Your task to perform on an android device: Open calendar and show me the fourth week of next month Image 0: 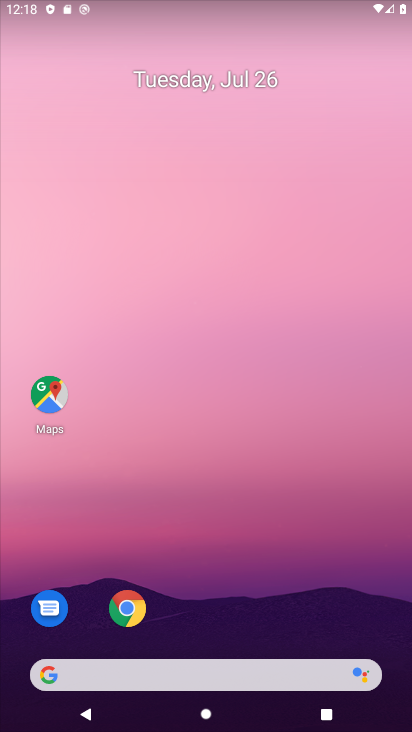
Step 0: drag from (276, 609) to (300, 64)
Your task to perform on an android device: Open calendar and show me the fourth week of next month Image 1: 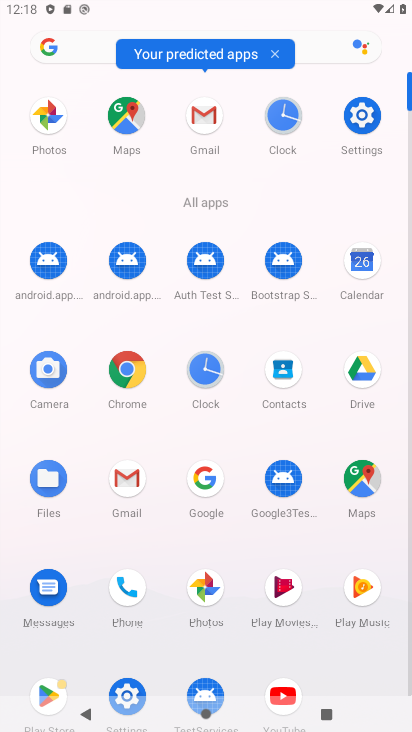
Step 1: click (363, 263)
Your task to perform on an android device: Open calendar and show me the fourth week of next month Image 2: 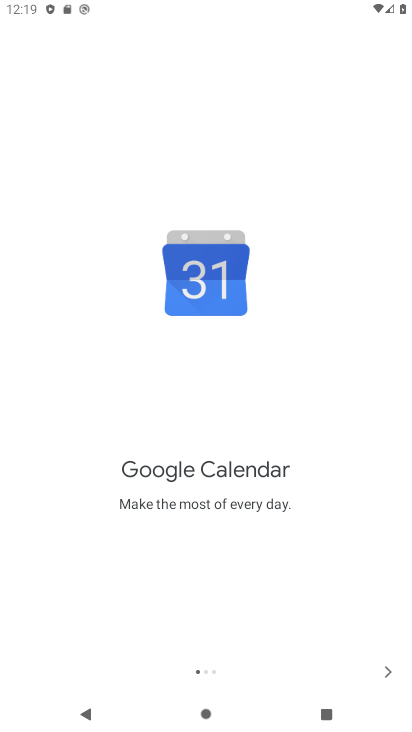
Step 2: click (389, 673)
Your task to perform on an android device: Open calendar and show me the fourth week of next month Image 3: 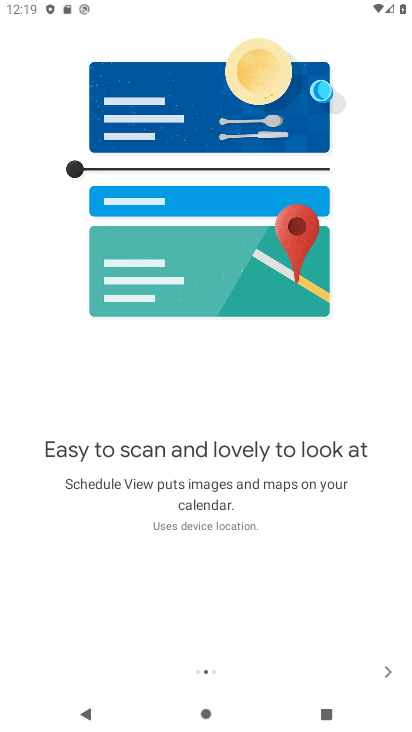
Step 3: click (389, 673)
Your task to perform on an android device: Open calendar and show me the fourth week of next month Image 4: 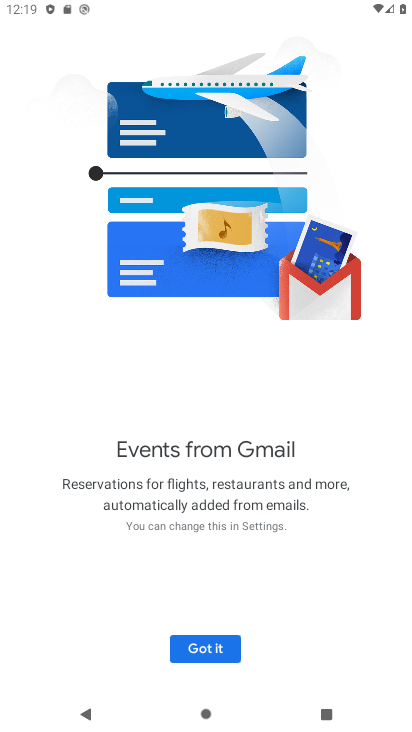
Step 4: click (195, 657)
Your task to perform on an android device: Open calendar and show me the fourth week of next month Image 5: 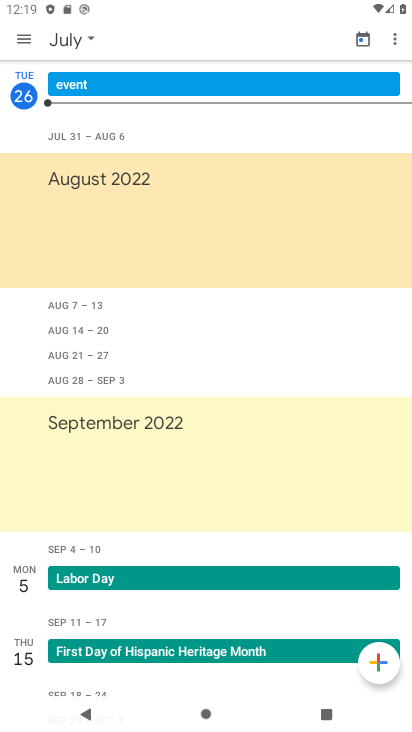
Step 5: click (93, 43)
Your task to perform on an android device: Open calendar and show me the fourth week of next month Image 6: 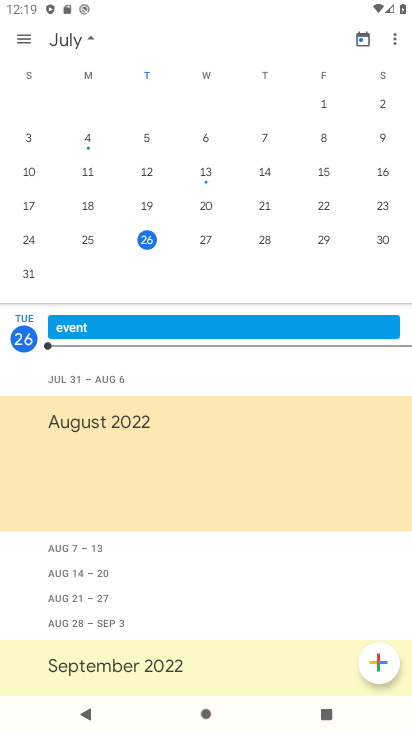
Step 6: drag from (362, 120) to (23, 110)
Your task to perform on an android device: Open calendar and show me the fourth week of next month Image 7: 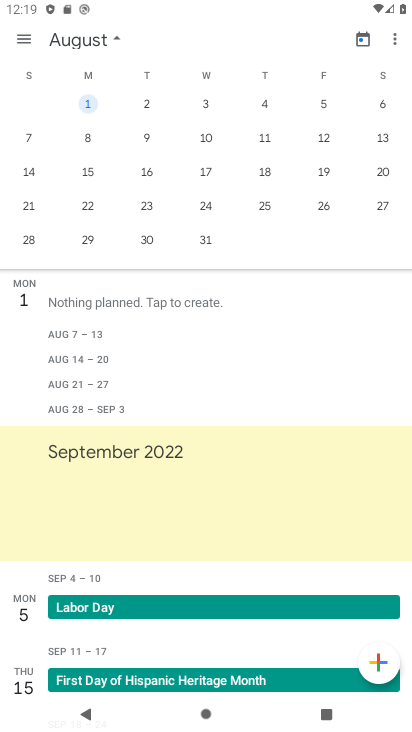
Step 7: click (88, 206)
Your task to perform on an android device: Open calendar and show me the fourth week of next month Image 8: 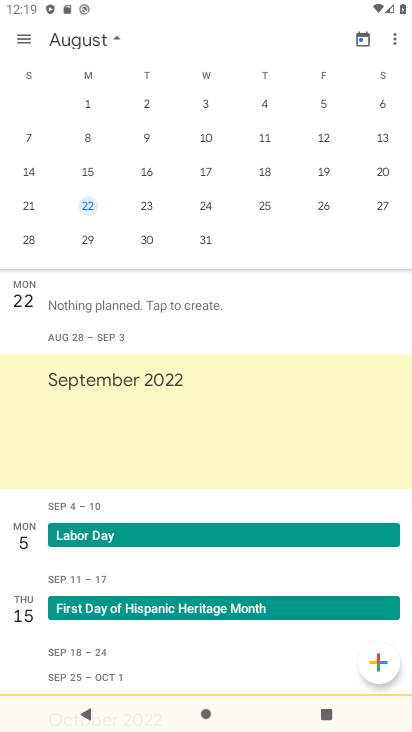
Step 8: task complete